Your task to perform on an android device: Go to eBay Image 0: 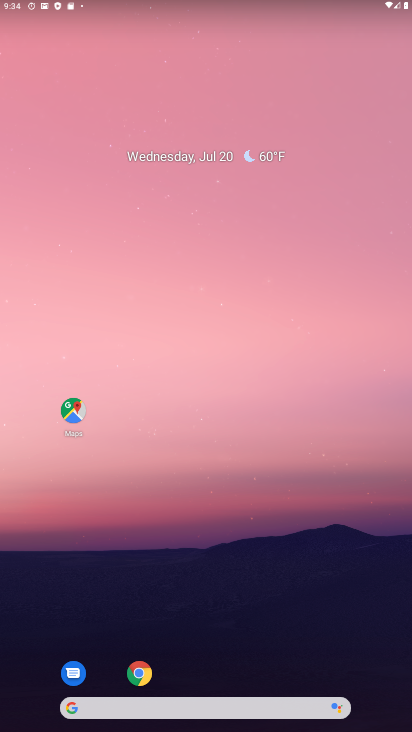
Step 0: click (140, 663)
Your task to perform on an android device: Go to eBay Image 1: 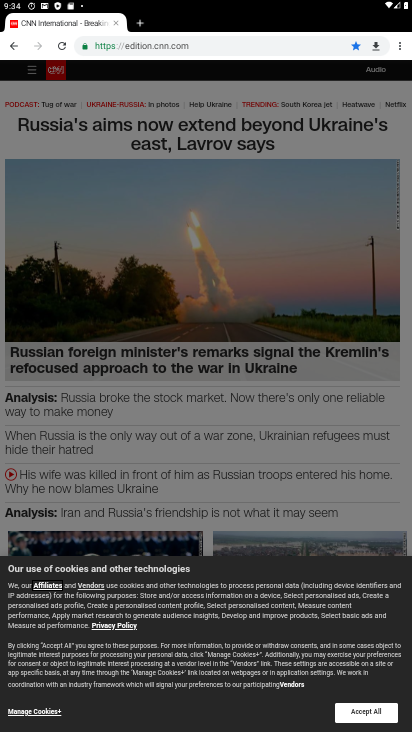
Step 1: click (198, 44)
Your task to perform on an android device: Go to eBay Image 2: 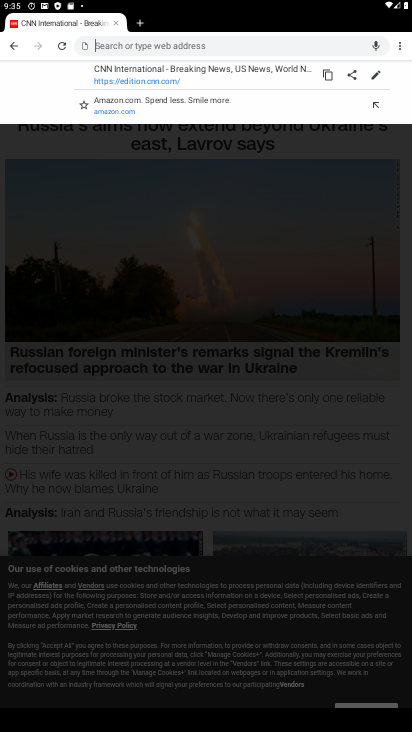
Step 2: type "eBay"
Your task to perform on an android device: Go to eBay Image 3: 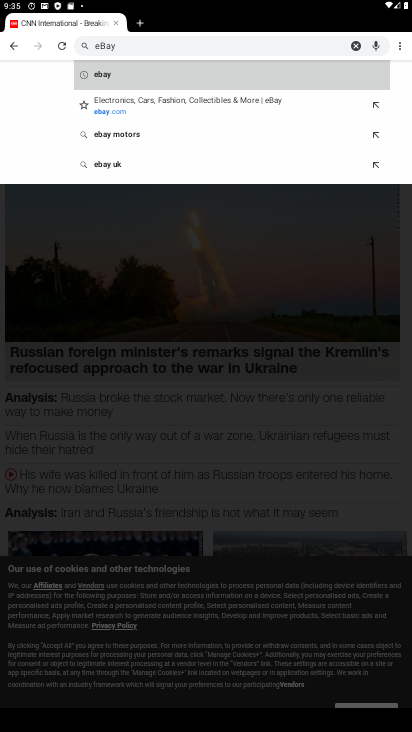
Step 3: click (144, 75)
Your task to perform on an android device: Go to eBay Image 4: 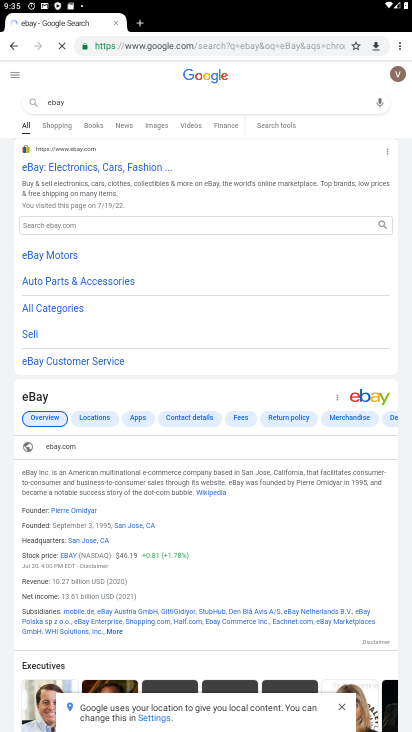
Step 4: task complete